Your task to perform on an android device: turn off airplane mode Image 0: 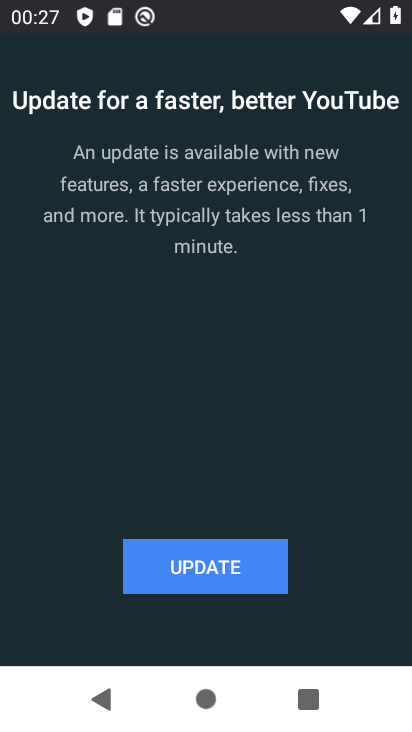
Step 0: press back button
Your task to perform on an android device: turn off airplane mode Image 1: 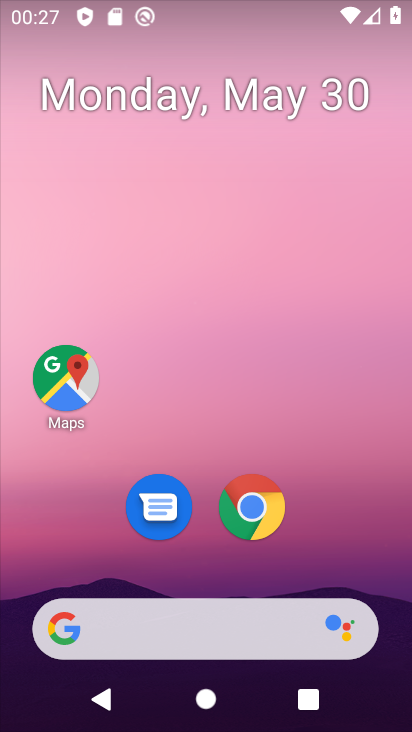
Step 1: drag from (348, 556) to (388, 171)
Your task to perform on an android device: turn off airplane mode Image 2: 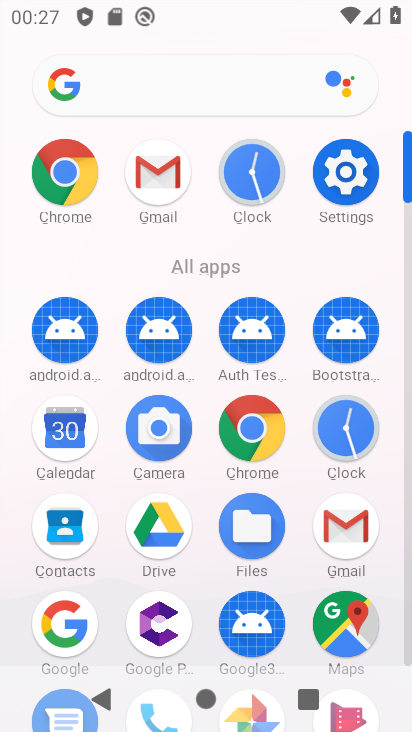
Step 2: click (340, 165)
Your task to perform on an android device: turn off airplane mode Image 3: 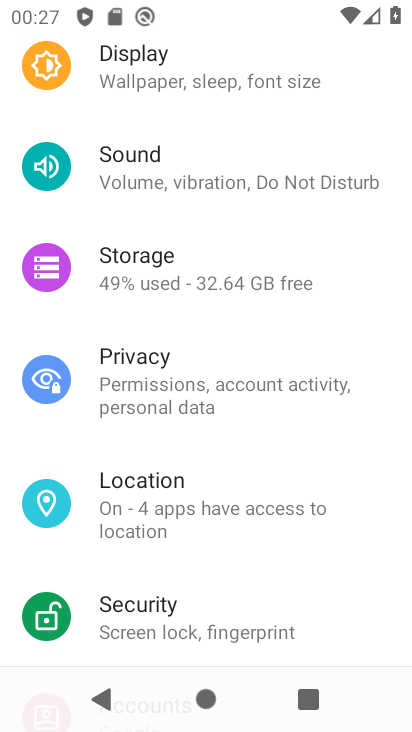
Step 3: drag from (199, 124) to (257, 569)
Your task to perform on an android device: turn off airplane mode Image 4: 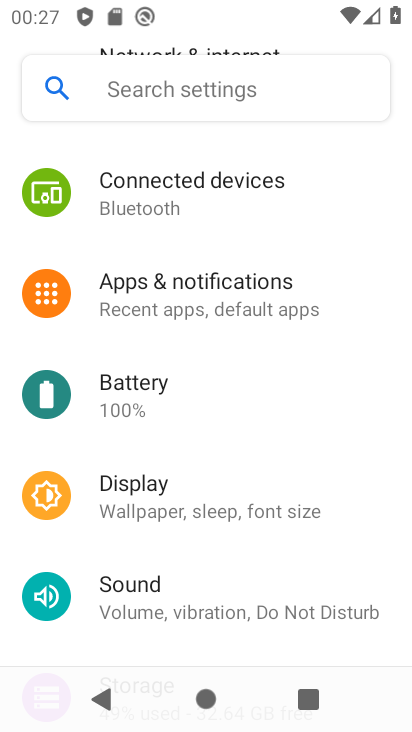
Step 4: drag from (232, 134) to (236, 526)
Your task to perform on an android device: turn off airplane mode Image 5: 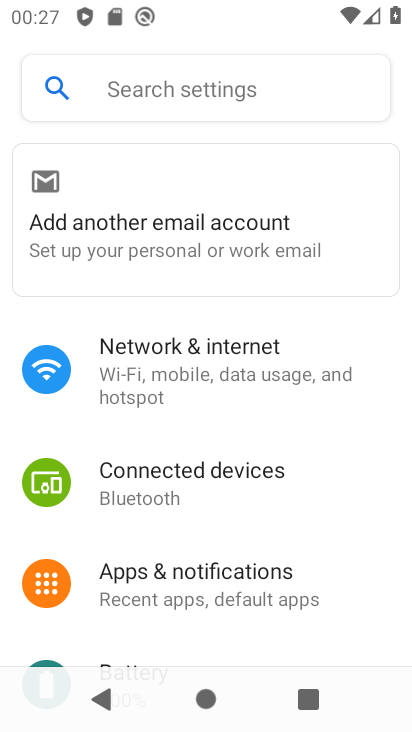
Step 5: click (203, 370)
Your task to perform on an android device: turn off airplane mode Image 6: 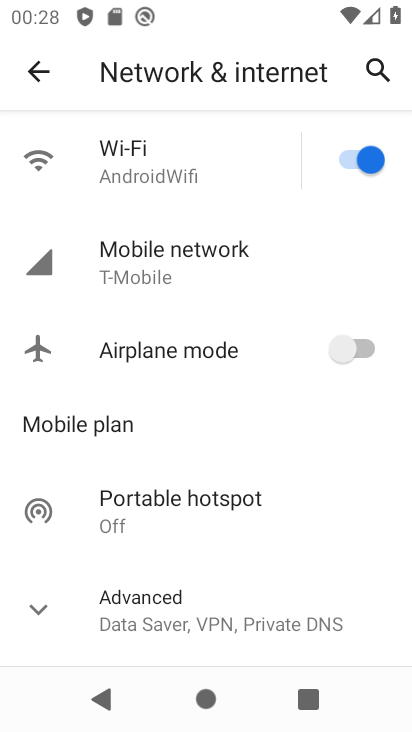
Step 6: task complete